Your task to perform on an android device: turn off data saver in the chrome app Image 0: 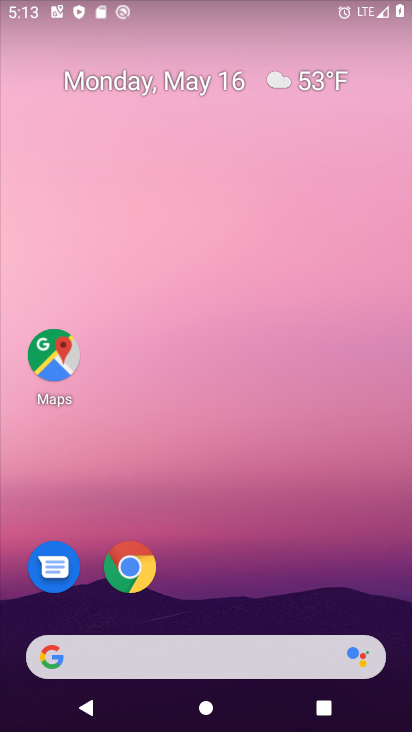
Step 0: drag from (204, 651) to (289, 113)
Your task to perform on an android device: turn off data saver in the chrome app Image 1: 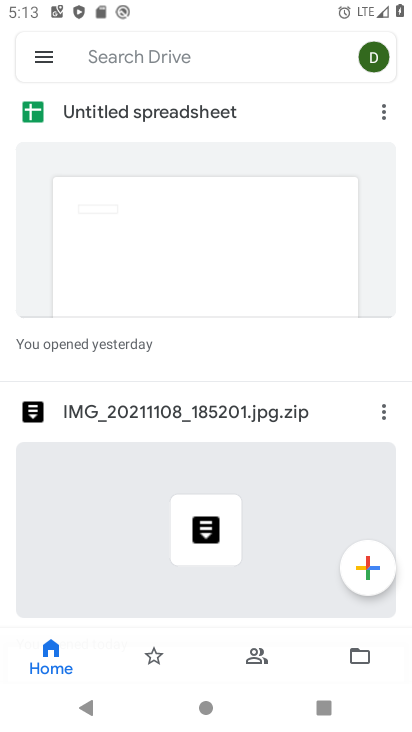
Step 1: press home button
Your task to perform on an android device: turn off data saver in the chrome app Image 2: 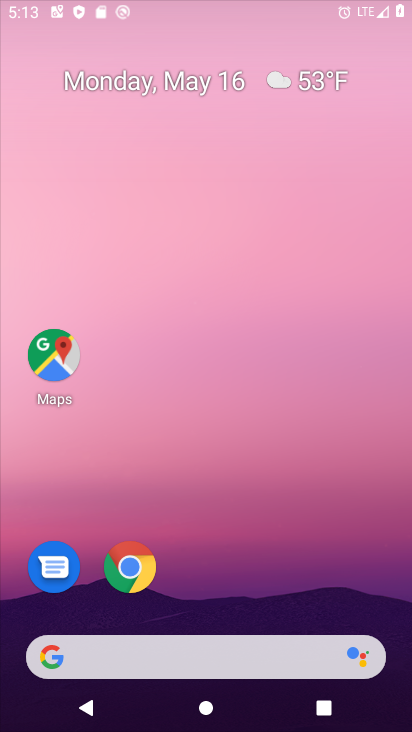
Step 2: drag from (266, 624) to (346, 40)
Your task to perform on an android device: turn off data saver in the chrome app Image 3: 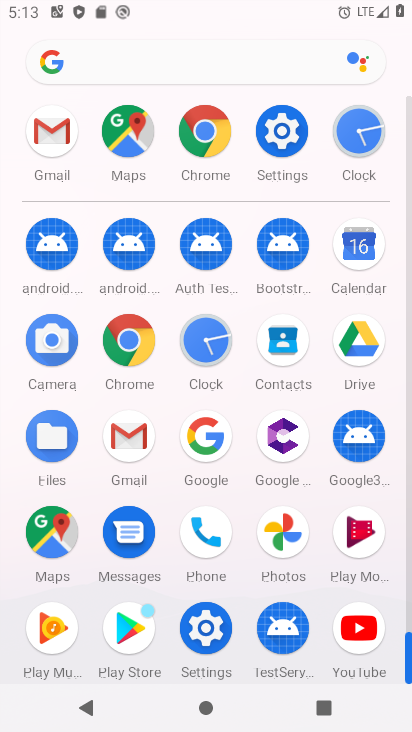
Step 3: click (120, 355)
Your task to perform on an android device: turn off data saver in the chrome app Image 4: 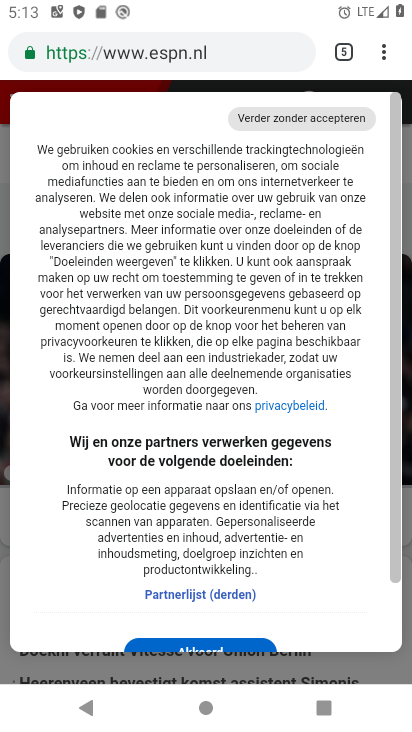
Step 4: click (375, 51)
Your task to perform on an android device: turn off data saver in the chrome app Image 5: 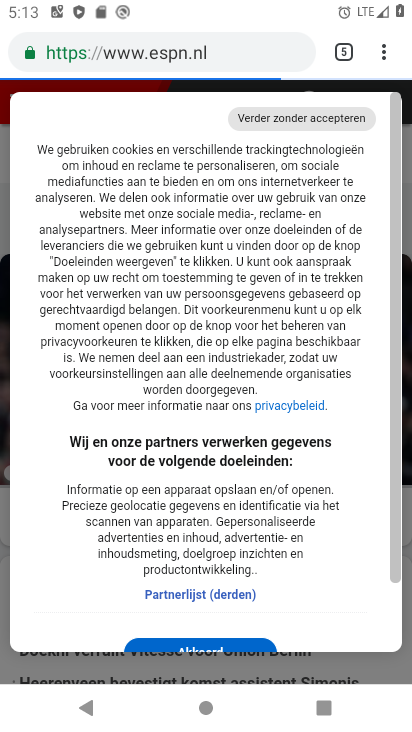
Step 5: click (375, 51)
Your task to perform on an android device: turn off data saver in the chrome app Image 6: 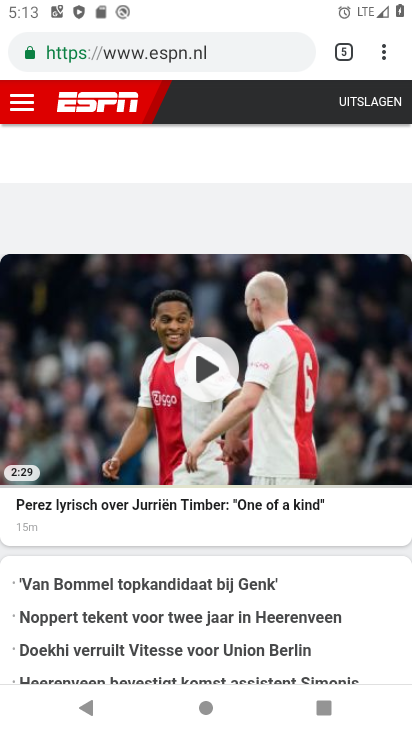
Step 6: click (375, 51)
Your task to perform on an android device: turn off data saver in the chrome app Image 7: 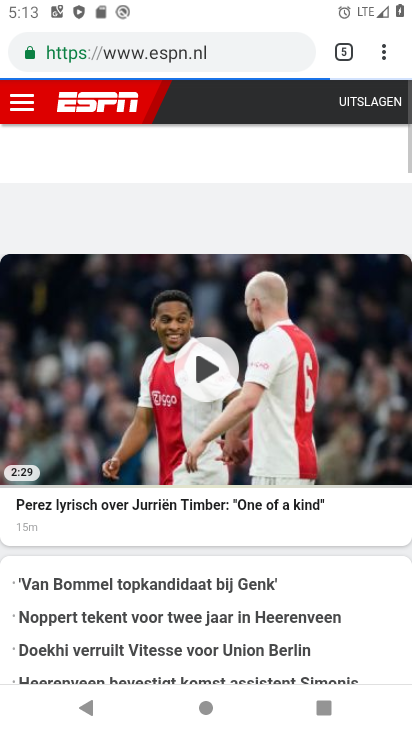
Step 7: drag from (381, 44) to (275, 599)
Your task to perform on an android device: turn off data saver in the chrome app Image 8: 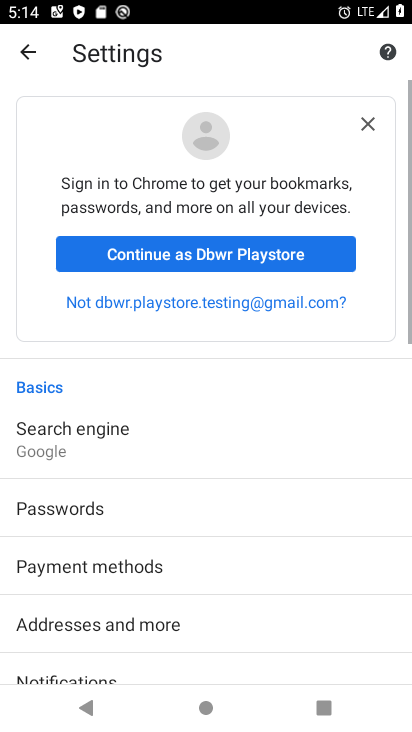
Step 8: drag from (241, 631) to (317, 146)
Your task to perform on an android device: turn off data saver in the chrome app Image 9: 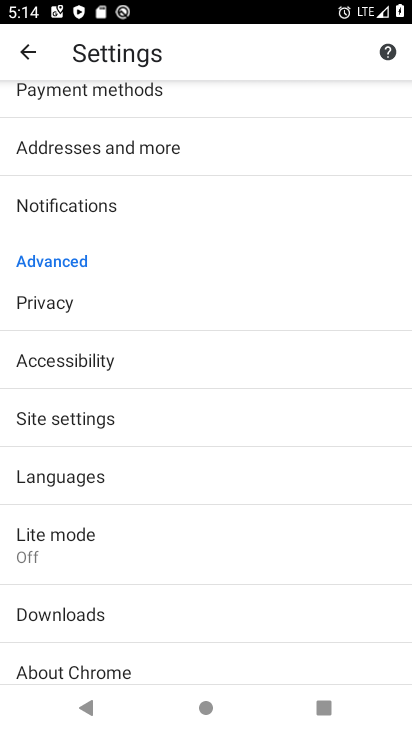
Step 9: click (91, 555)
Your task to perform on an android device: turn off data saver in the chrome app Image 10: 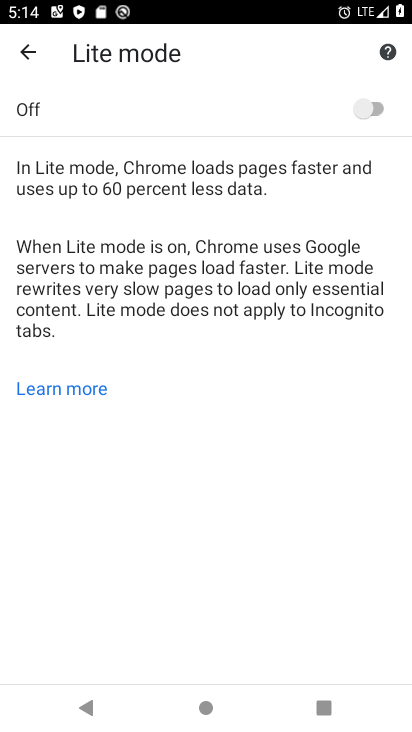
Step 10: task complete